Your task to perform on an android device: Open Google Image 0: 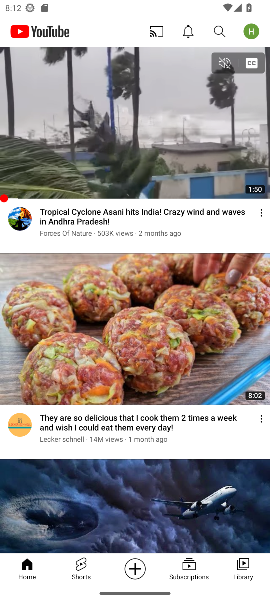
Step 0: press home button
Your task to perform on an android device: Open Google Image 1: 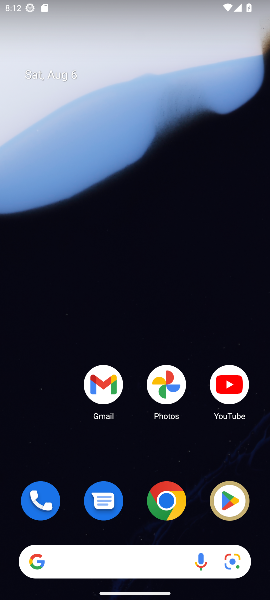
Step 1: click (62, 562)
Your task to perform on an android device: Open Google Image 2: 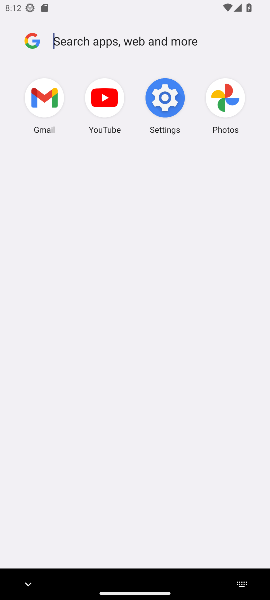
Step 2: task complete